Your task to perform on an android device: Set the phone to "Do not disturb". Image 0: 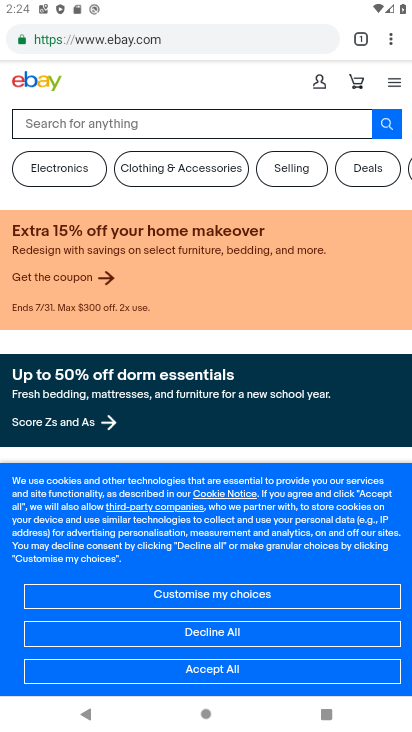
Step 0: task complete